Your task to perform on an android device: change keyboard looks Image 0: 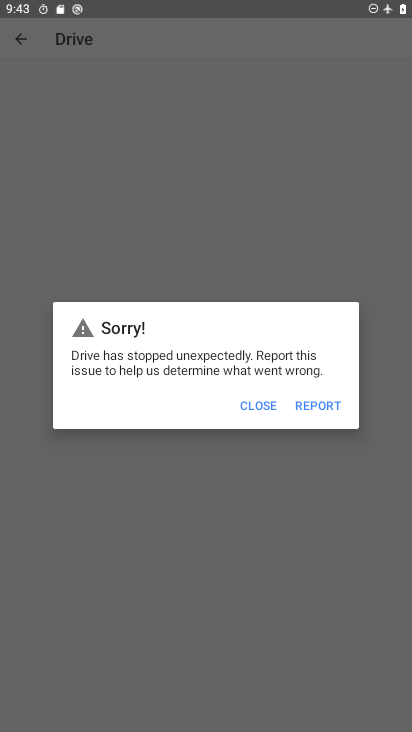
Step 0: press home button
Your task to perform on an android device: change keyboard looks Image 1: 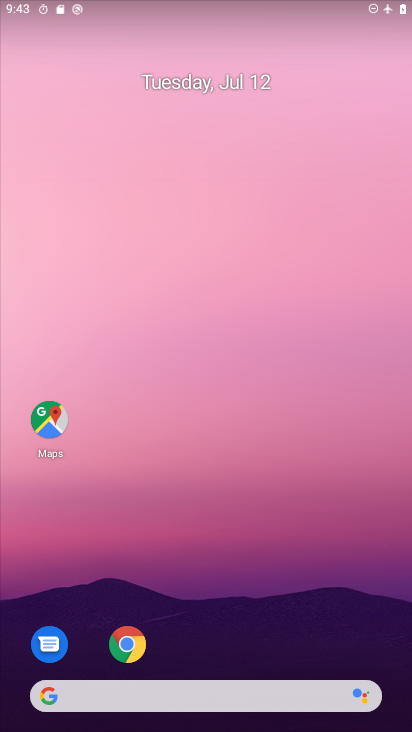
Step 1: drag from (229, 638) to (231, 67)
Your task to perform on an android device: change keyboard looks Image 2: 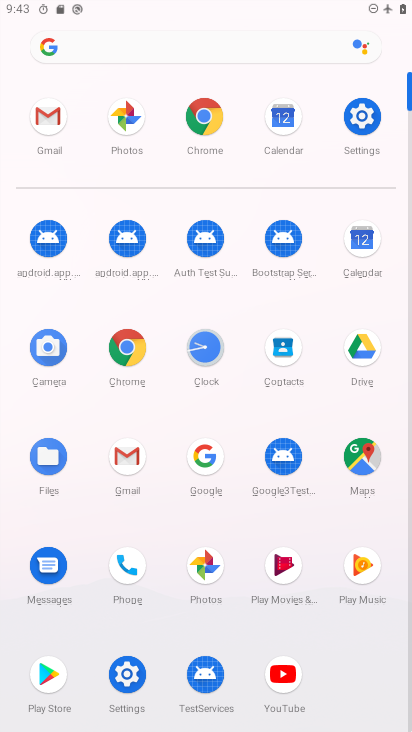
Step 2: click (359, 112)
Your task to perform on an android device: change keyboard looks Image 3: 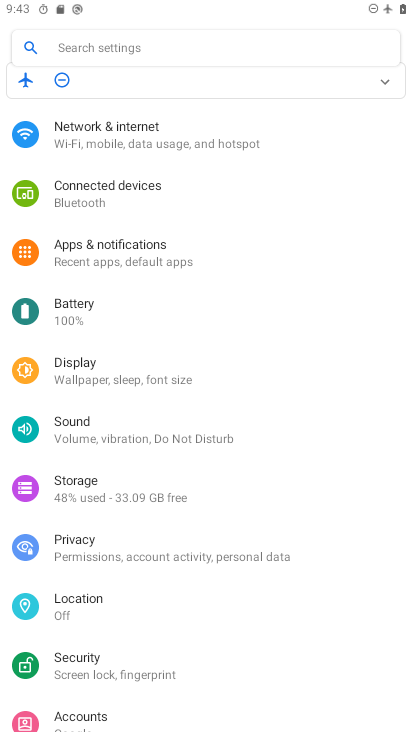
Step 3: drag from (165, 627) to (173, 159)
Your task to perform on an android device: change keyboard looks Image 4: 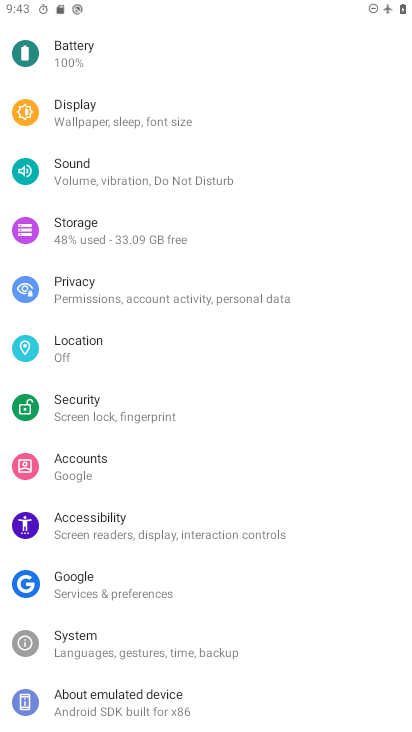
Step 4: click (119, 685)
Your task to perform on an android device: change keyboard looks Image 5: 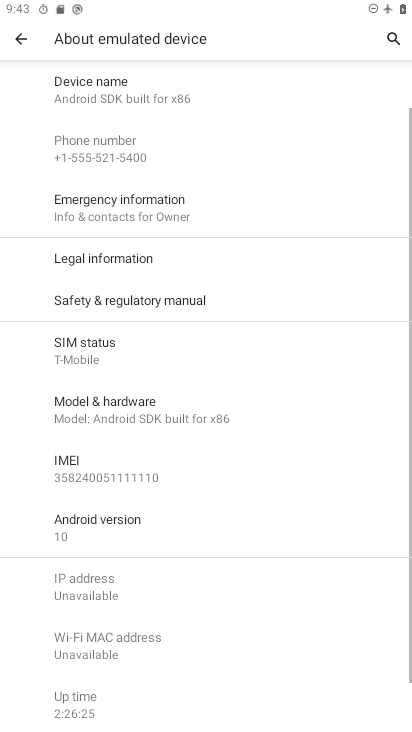
Step 5: click (7, 34)
Your task to perform on an android device: change keyboard looks Image 6: 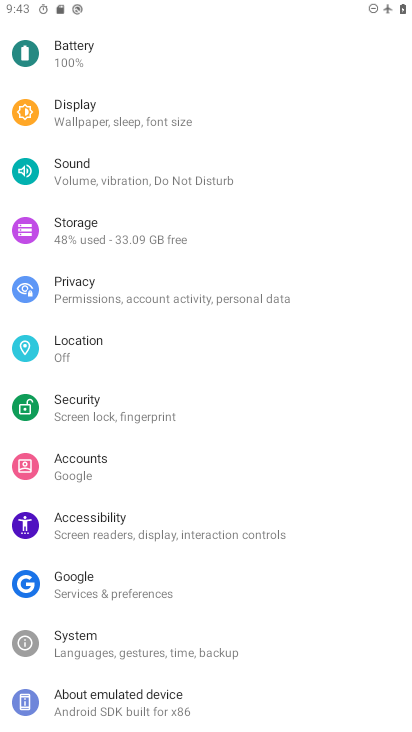
Step 6: click (114, 639)
Your task to perform on an android device: change keyboard looks Image 7: 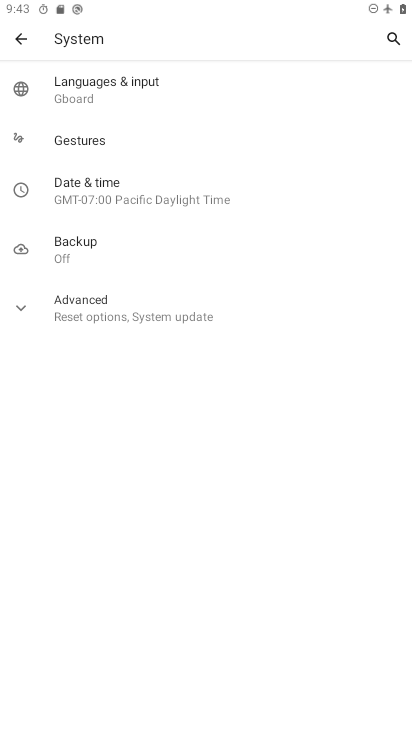
Step 7: click (122, 104)
Your task to perform on an android device: change keyboard looks Image 8: 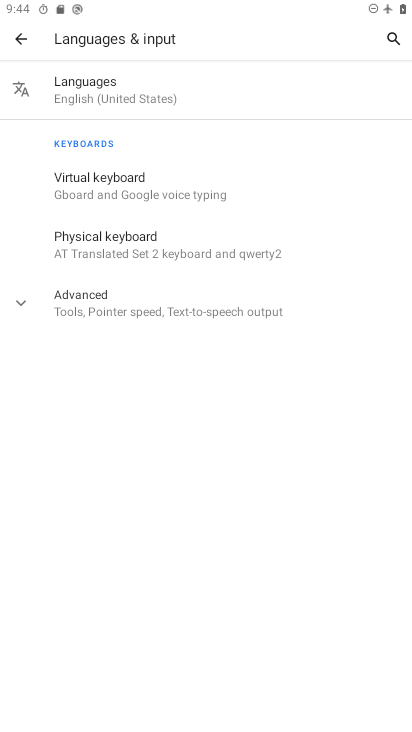
Step 8: click (135, 194)
Your task to perform on an android device: change keyboard looks Image 9: 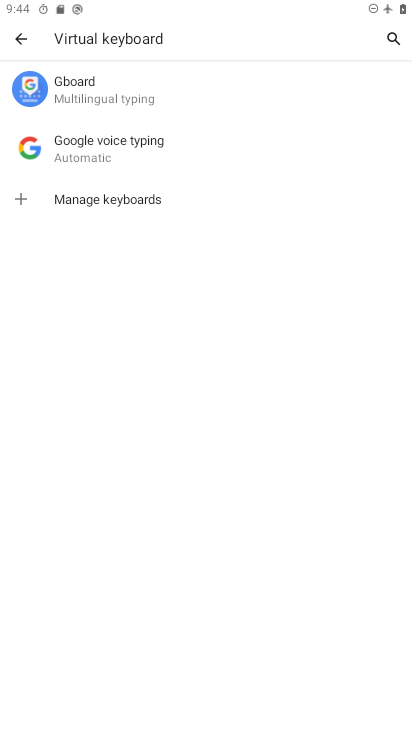
Step 9: click (134, 95)
Your task to perform on an android device: change keyboard looks Image 10: 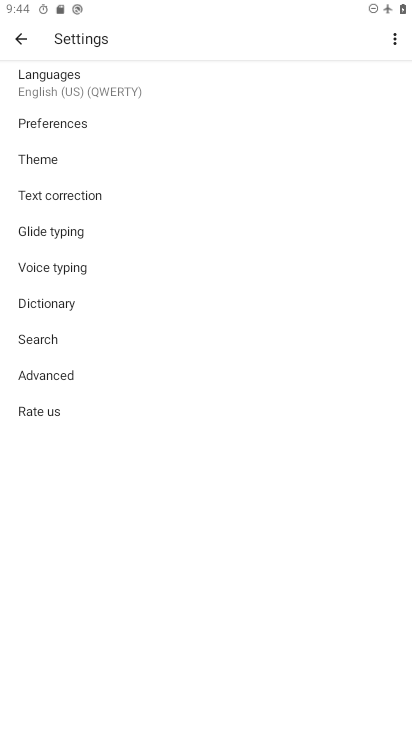
Step 10: click (81, 167)
Your task to perform on an android device: change keyboard looks Image 11: 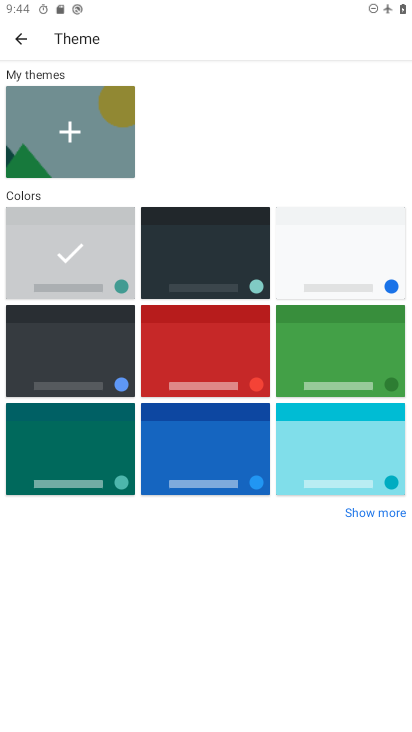
Step 11: click (176, 249)
Your task to perform on an android device: change keyboard looks Image 12: 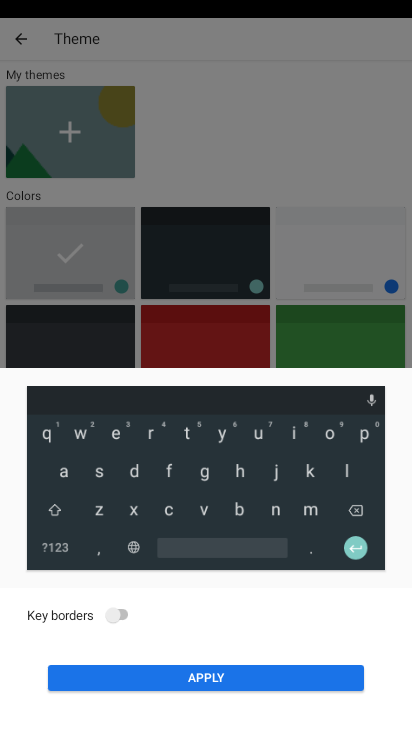
Step 12: click (282, 675)
Your task to perform on an android device: change keyboard looks Image 13: 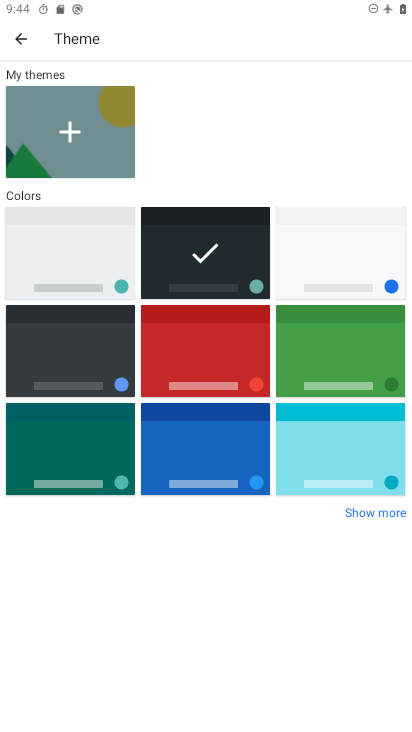
Step 13: task complete